Your task to perform on an android device: Turn off the flashlight Image 0: 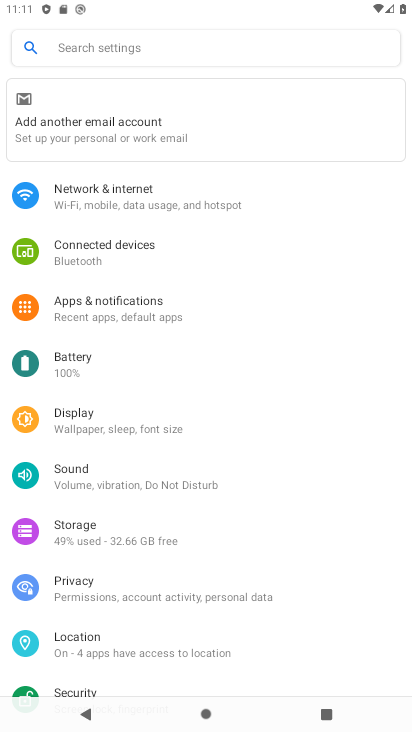
Step 0: task impossible